Your task to perform on an android device: Search for vegetarian restaurants on Maps Image 0: 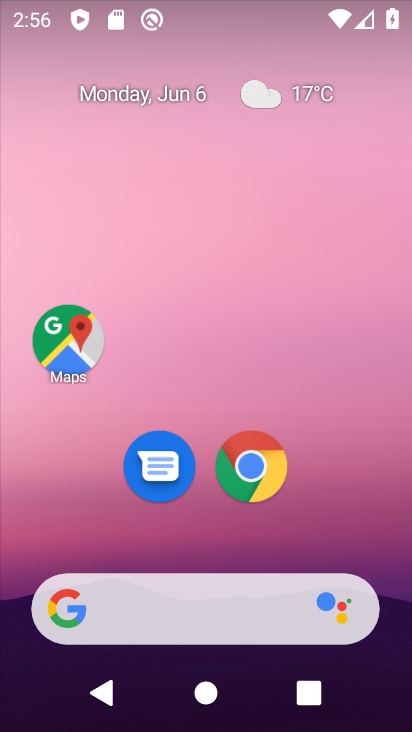
Step 0: press home button
Your task to perform on an android device: Search for vegetarian restaurants on Maps Image 1: 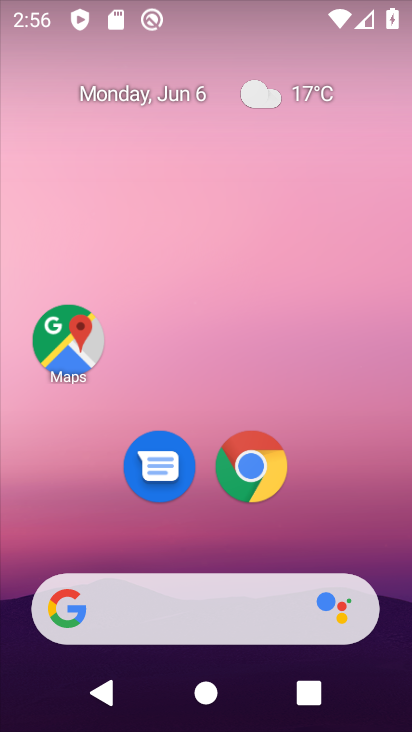
Step 1: press home button
Your task to perform on an android device: Search for vegetarian restaurants on Maps Image 2: 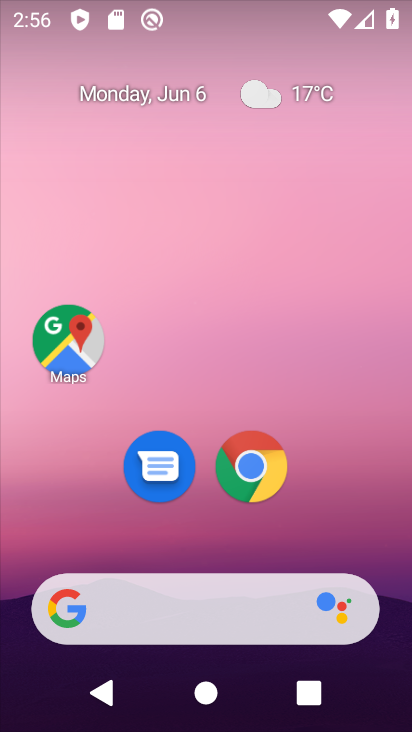
Step 2: drag from (285, 212) to (243, 51)
Your task to perform on an android device: Search for vegetarian restaurants on Maps Image 3: 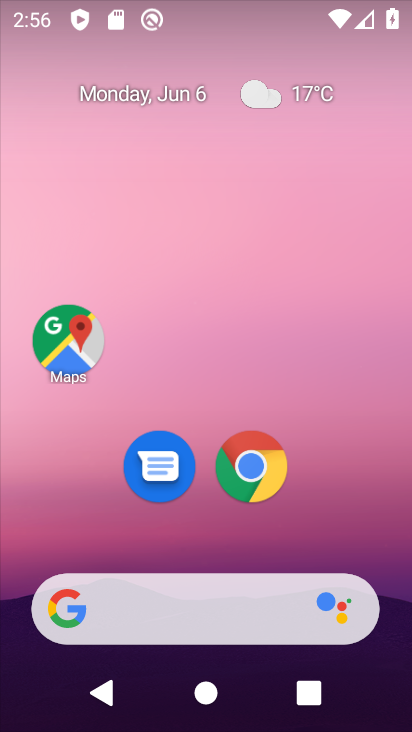
Step 3: click (60, 345)
Your task to perform on an android device: Search for vegetarian restaurants on Maps Image 4: 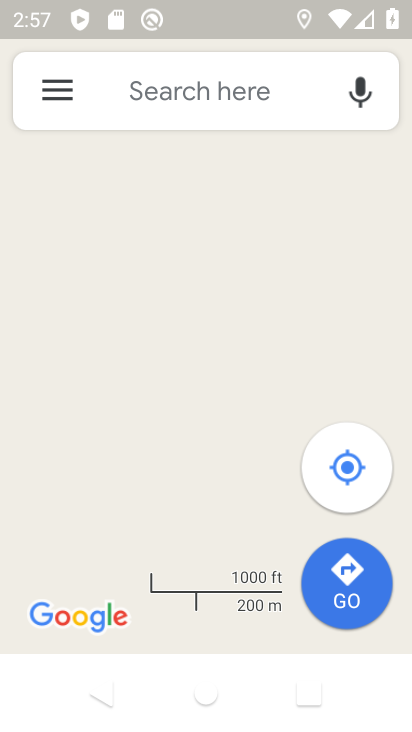
Step 4: click (204, 89)
Your task to perform on an android device: Search for vegetarian restaurants on Maps Image 5: 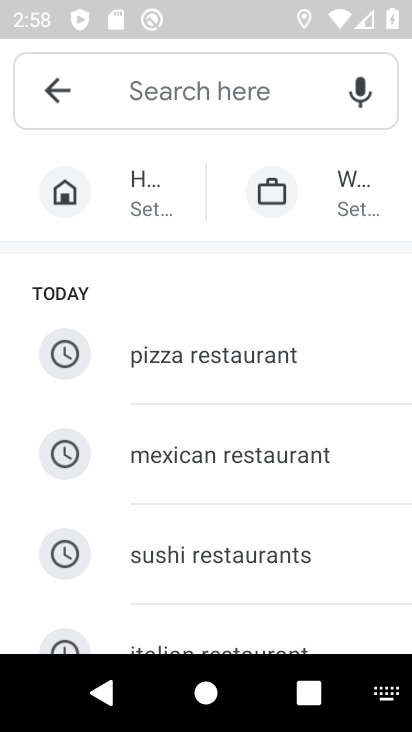
Step 5: drag from (256, 558) to (244, 98)
Your task to perform on an android device: Search for vegetarian restaurants on Maps Image 6: 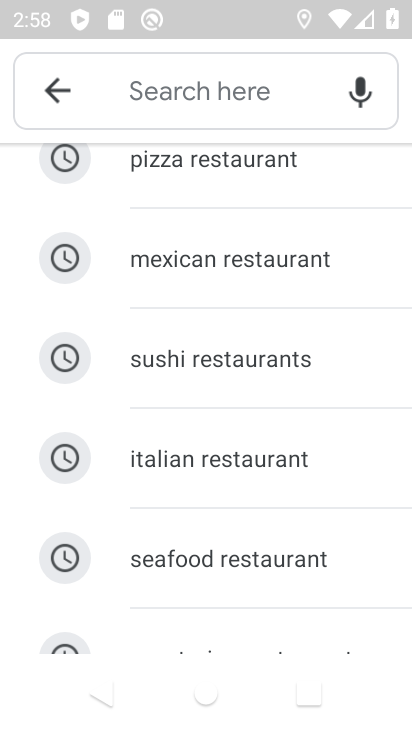
Step 6: click (148, 94)
Your task to perform on an android device: Search for vegetarian restaurants on Maps Image 7: 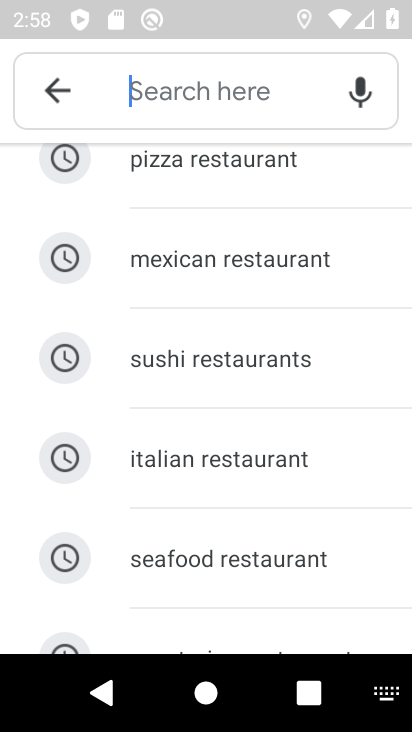
Step 7: type "vegetarian restaurants"
Your task to perform on an android device: Search for vegetarian restaurants on Maps Image 8: 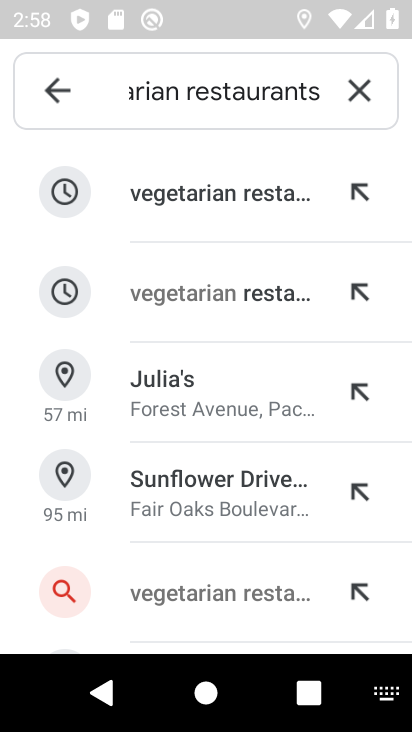
Step 8: click (217, 181)
Your task to perform on an android device: Search for vegetarian restaurants on Maps Image 9: 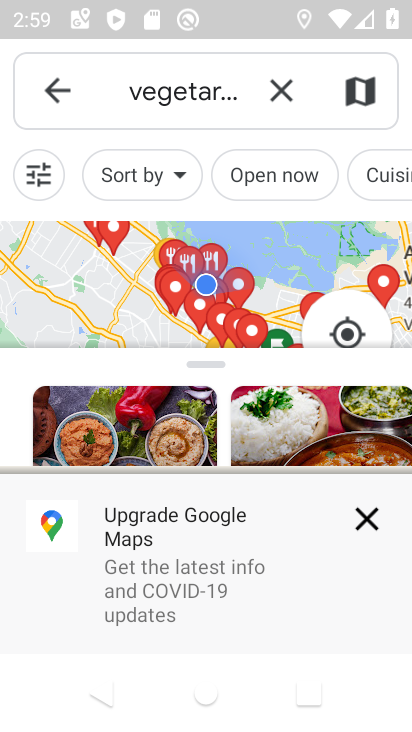
Step 9: task complete